Your task to perform on an android device: open a bookmark in the chrome app Image 0: 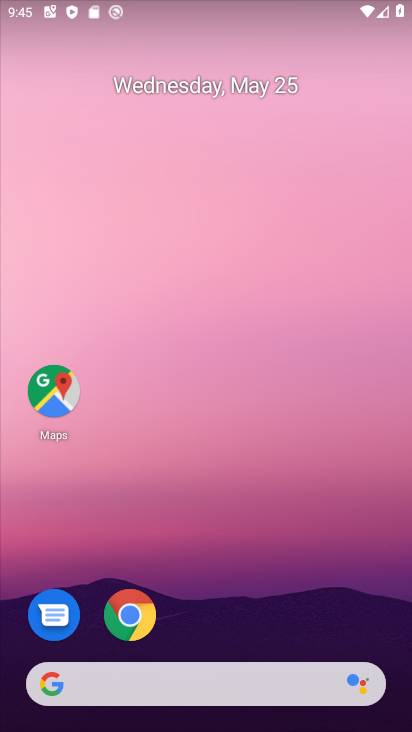
Step 0: click (141, 619)
Your task to perform on an android device: open a bookmark in the chrome app Image 1: 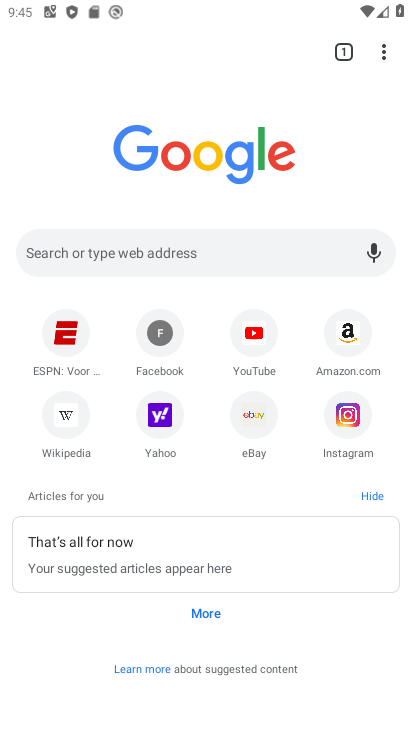
Step 1: click (384, 50)
Your task to perform on an android device: open a bookmark in the chrome app Image 2: 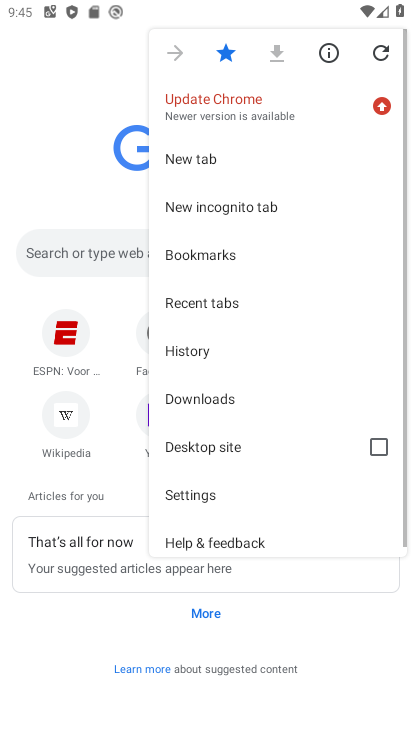
Step 2: click (384, 50)
Your task to perform on an android device: open a bookmark in the chrome app Image 3: 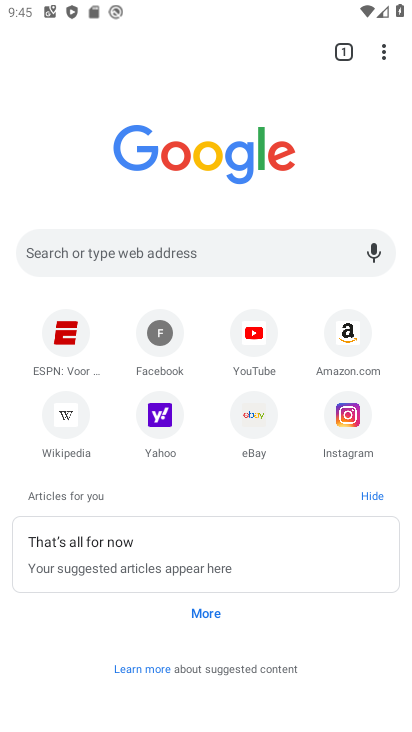
Step 3: click (384, 50)
Your task to perform on an android device: open a bookmark in the chrome app Image 4: 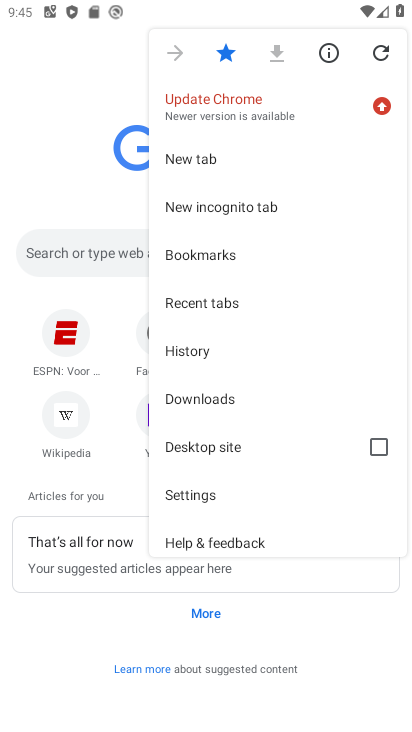
Step 4: click (236, 247)
Your task to perform on an android device: open a bookmark in the chrome app Image 5: 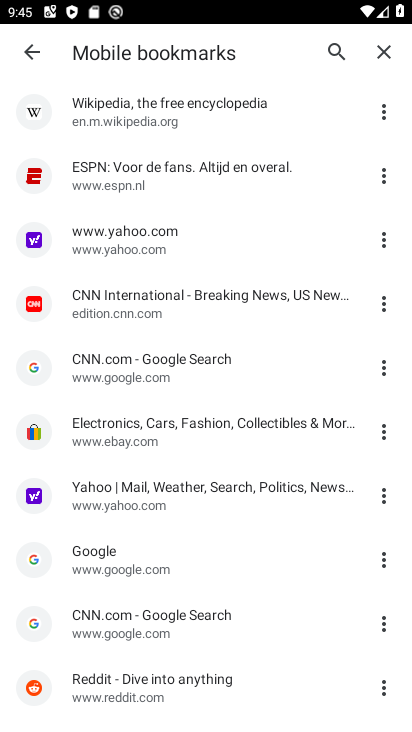
Step 5: click (159, 98)
Your task to perform on an android device: open a bookmark in the chrome app Image 6: 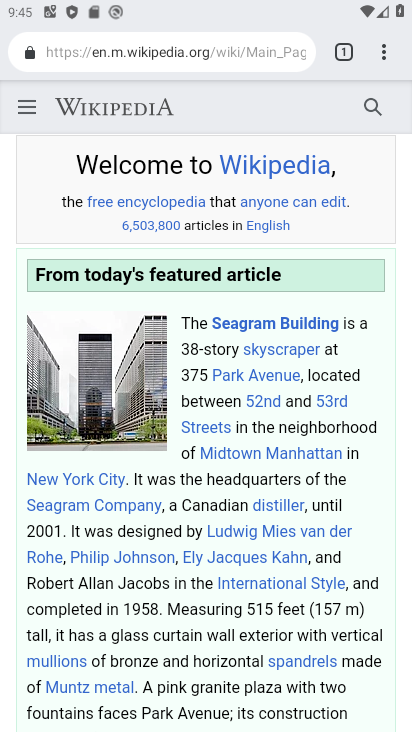
Step 6: task complete